Your task to perform on an android device: turn off smart reply in the gmail app Image 0: 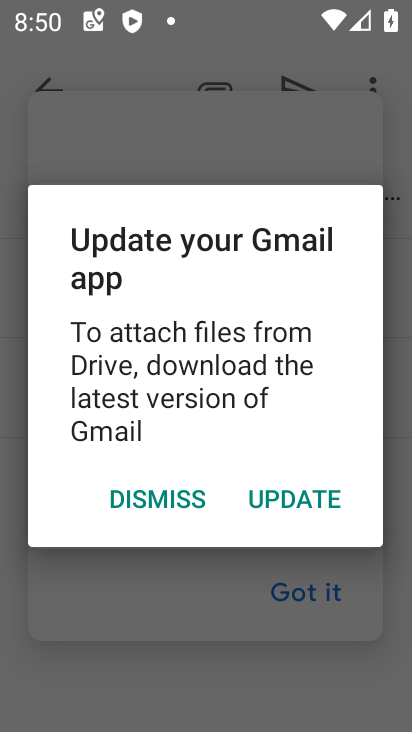
Step 0: press home button
Your task to perform on an android device: turn off smart reply in the gmail app Image 1: 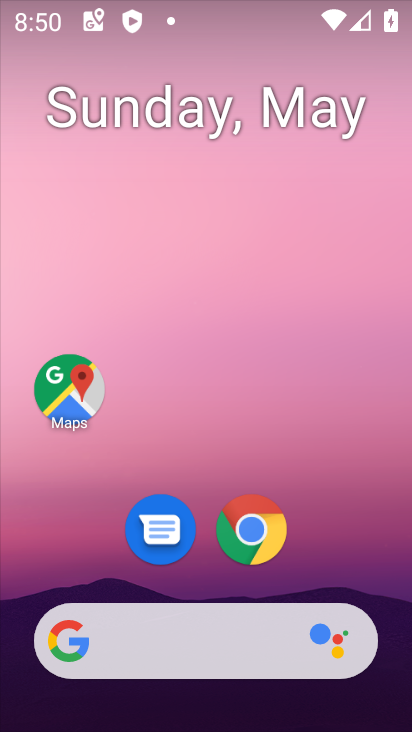
Step 1: drag from (357, 547) to (223, 37)
Your task to perform on an android device: turn off smart reply in the gmail app Image 2: 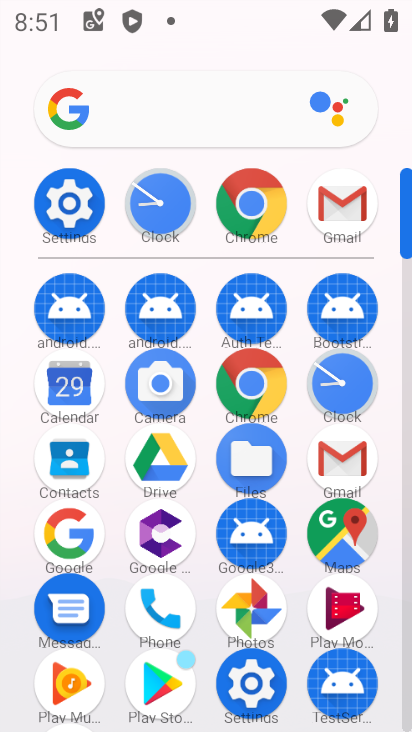
Step 2: click (343, 481)
Your task to perform on an android device: turn off smart reply in the gmail app Image 3: 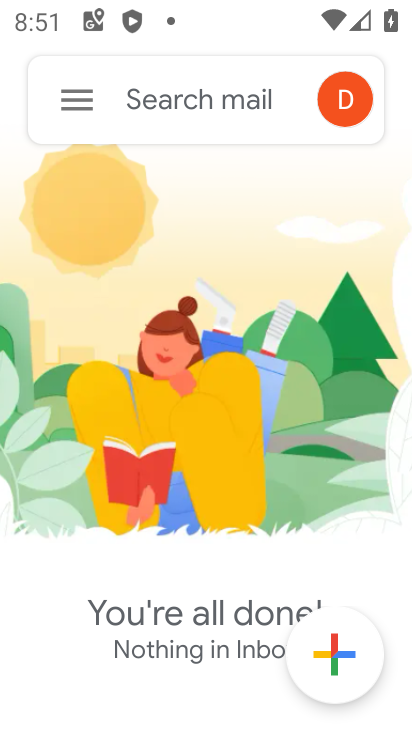
Step 3: click (83, 86)
Your task to perform on an android device: turn off smart reply in the gmail app Image 4: 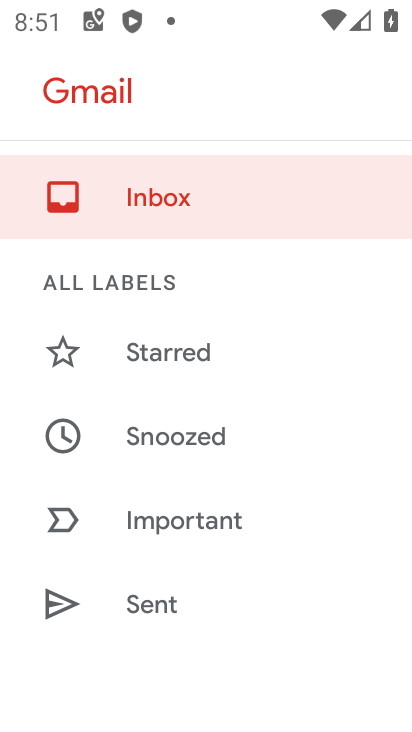
Step 4: drag from (137, 600) to (101, 227)
Your task to perform on an android device: turn off smart reply in the gmail app Image 5: 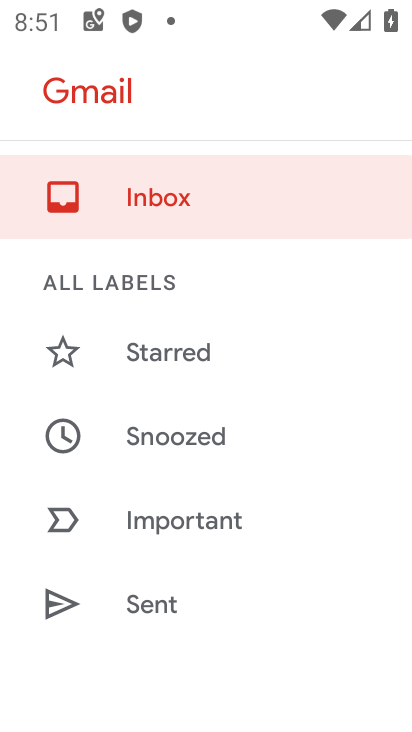
Step 5: drag from (139, 616) to (140, 136)
Your task to perform on an android device: turn off smart reply in the gmail app Image 6: 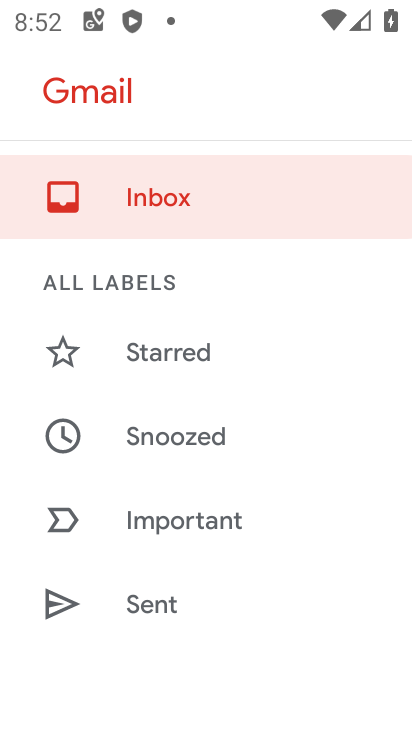
Step 6: drag from (245, 627) to (308, 249)
Your task to perform on an android device: turn off smart reply in the gmail app Image 7: 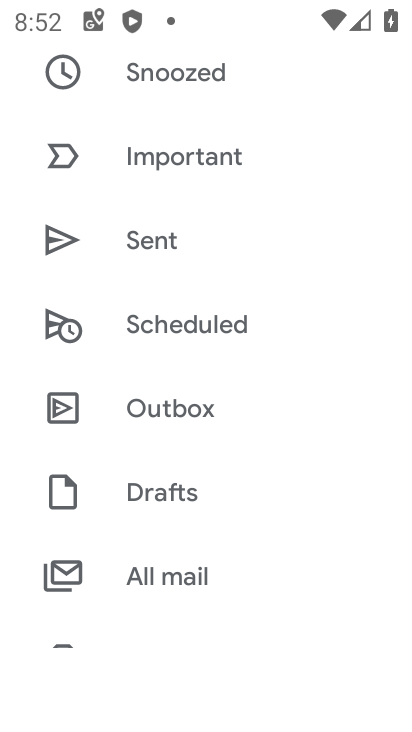
Step 7: drag from (261, 621) to (357, 228)
Your task to perform on an android device: turn off smart reply in the gmail app Image 8: 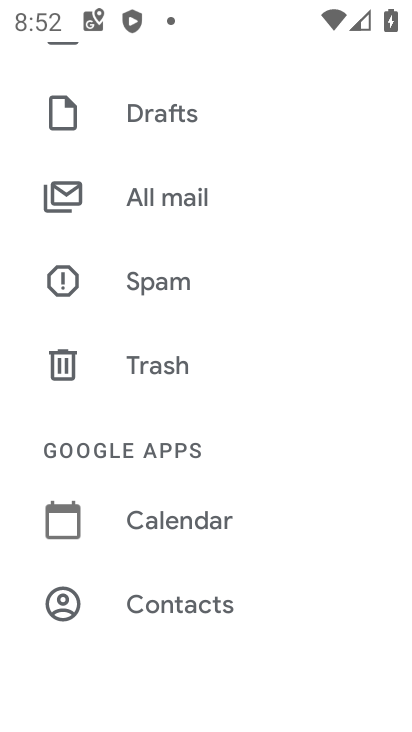
Step 8: drag from (294, 624) to (300, 222)
Your task to perform on an android device: turn off smart reply in the gmail app Image 9: 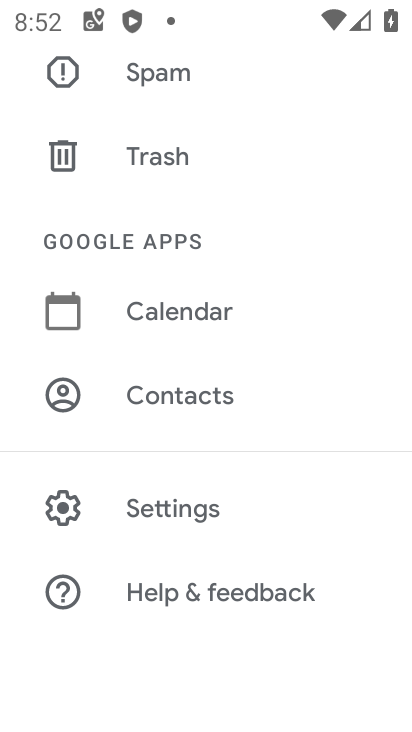
Step 9: click (208, 494)
Your task to perform on an android device: turn off smart reply in the gmail app Image 10: 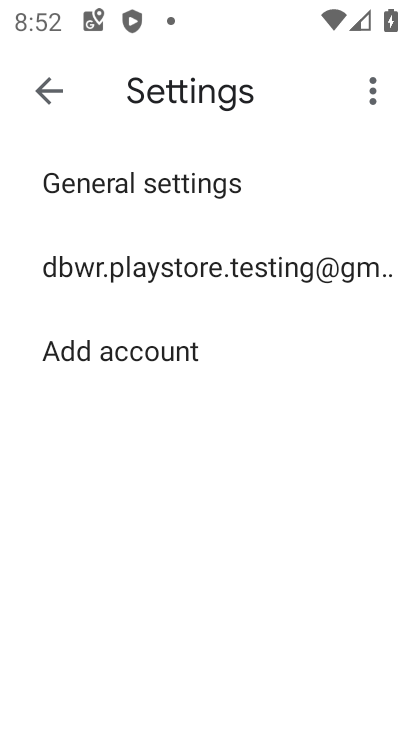
Step 10: click (263, 266)
Your task to perform on an android device: turn off smart reply in the gmail app Image 11: 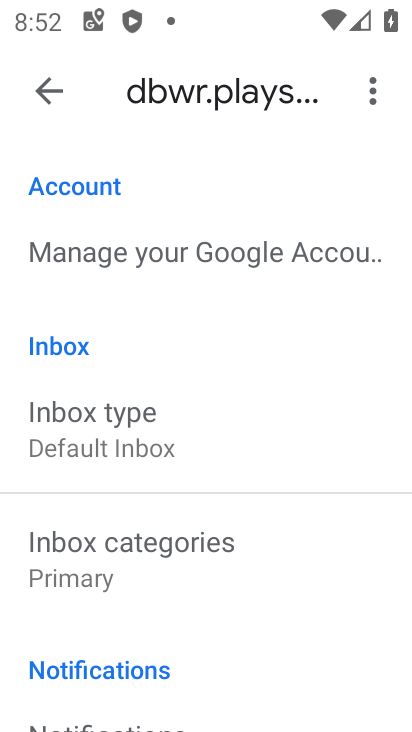
Step 11: task complete